Your task to perform on an android device: find photos in the google photos app Image 0: 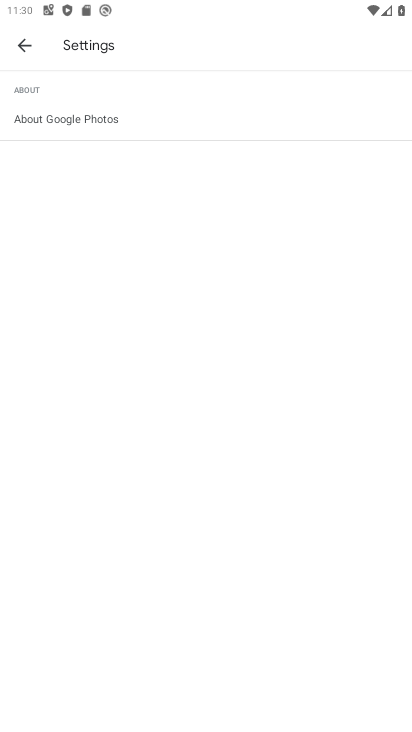
Step 0: press back button
Your task to perform on an android device: find photos in the google photos app Image 1: 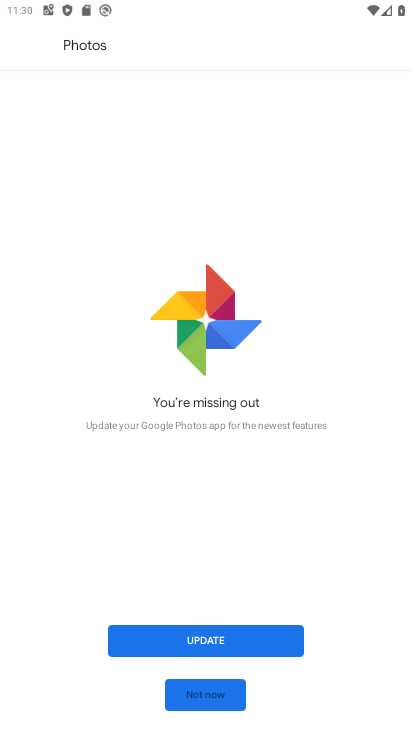
Step 1: click (196, 641)
Your task to perform on an android device: find photos in the google photos app Image 2: 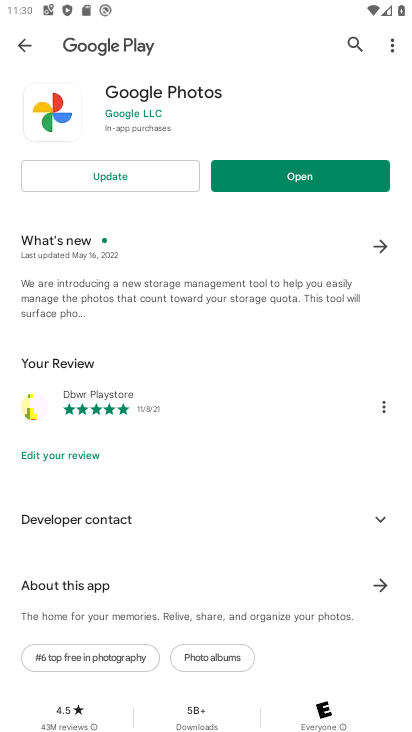
Step 2: click (129, 187)
Your task to perform on an android device: find photos in the google photos app Image 3: 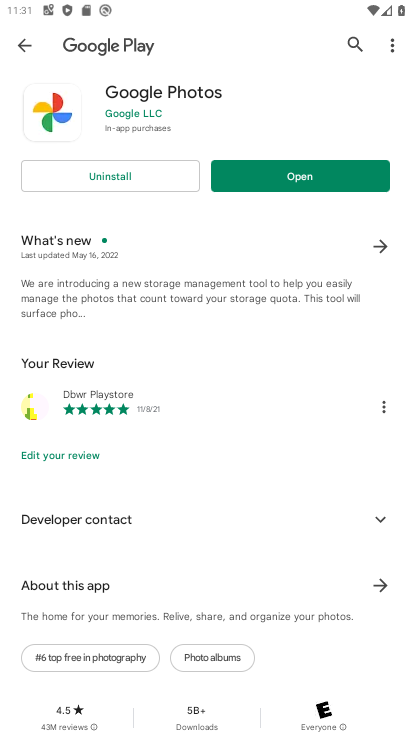
Step 3: click (307, 181)
Your task to perform on an android device: find photos in the google photos app Image 4: 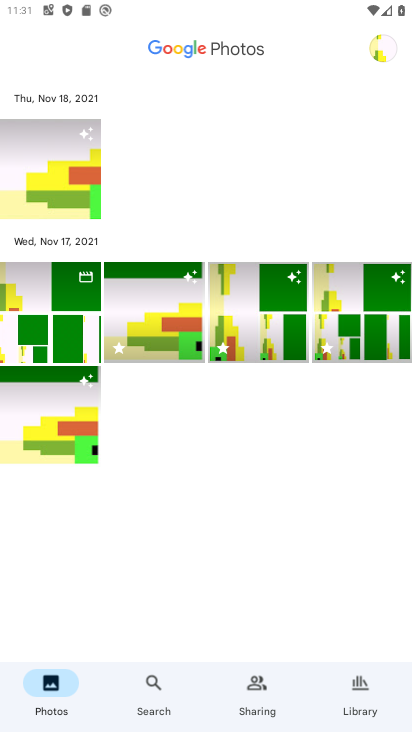
Step 4: click (90, 174)
Your task to perform on an android device: find photos in the google photos app Image 5: 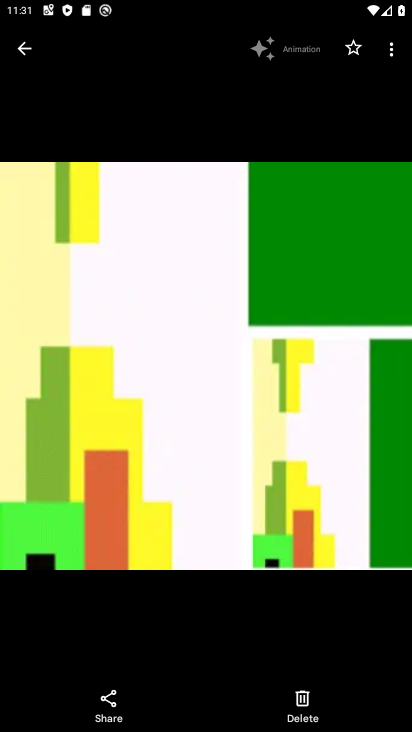
Step 5: task complete